Your task to perform on an android device: Open Android settings Image 0: 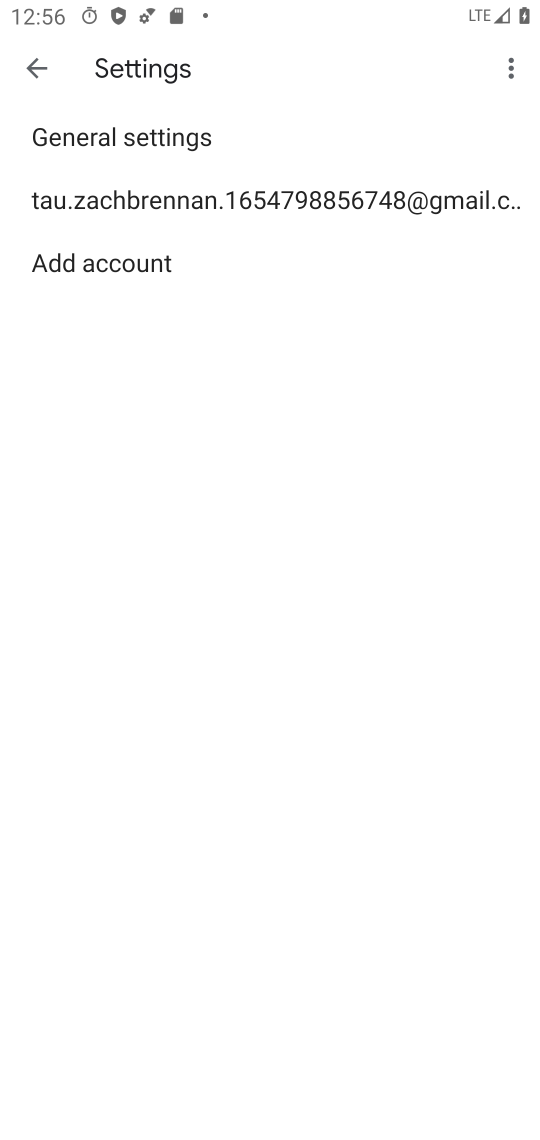
Step 0: press home button
Your task to perform on an android device: Open Android settings Image 1: 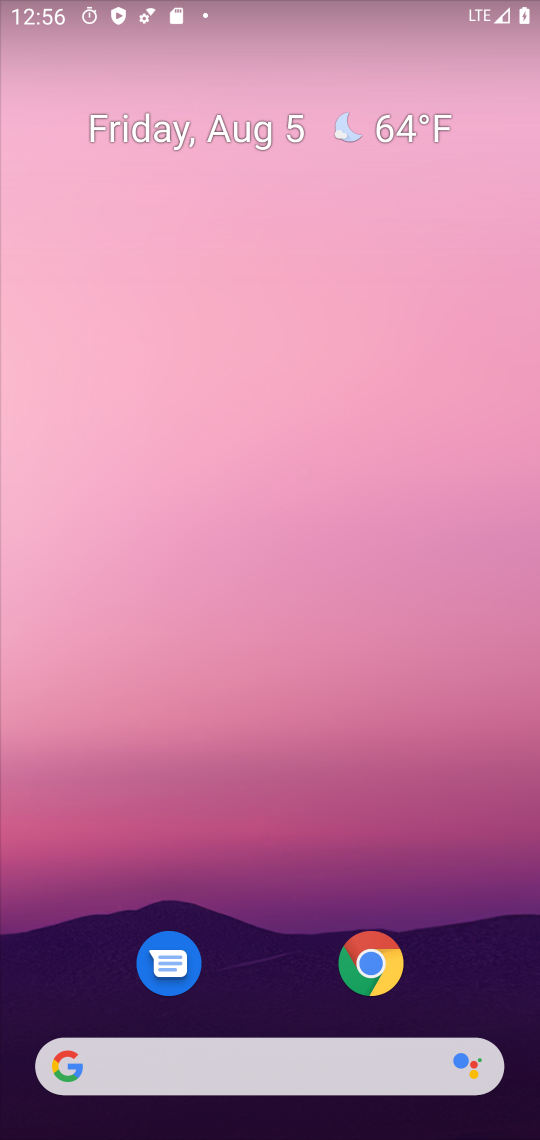
Step 1: drag from (327, 859) to (439, 17)
Your task to perform on an android device: Open Android settings Image 2: 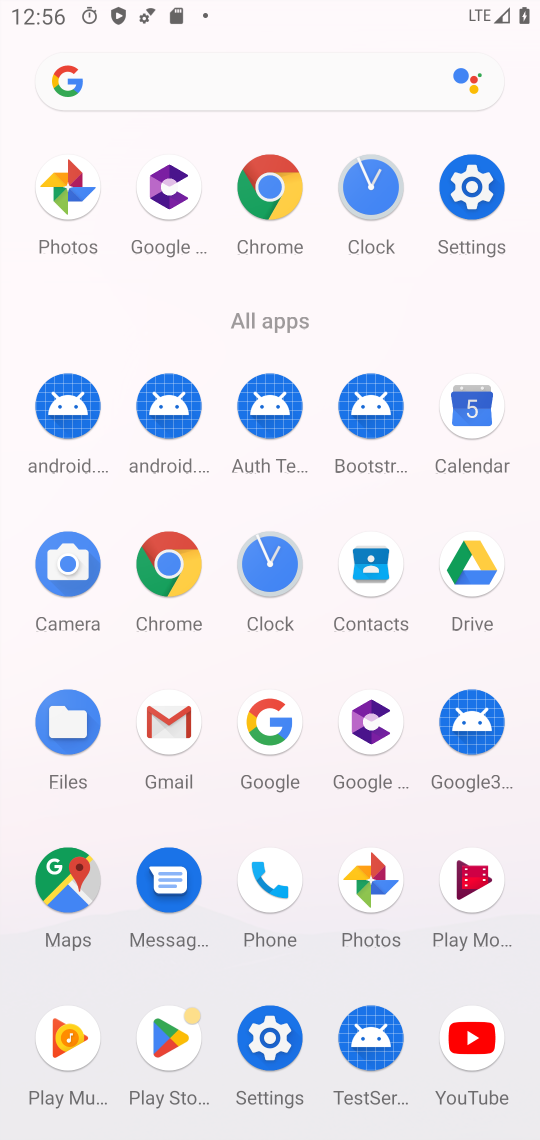
Step 2: click (481, 198)
Your task to perform on an android device: Open Android settings Image 3: 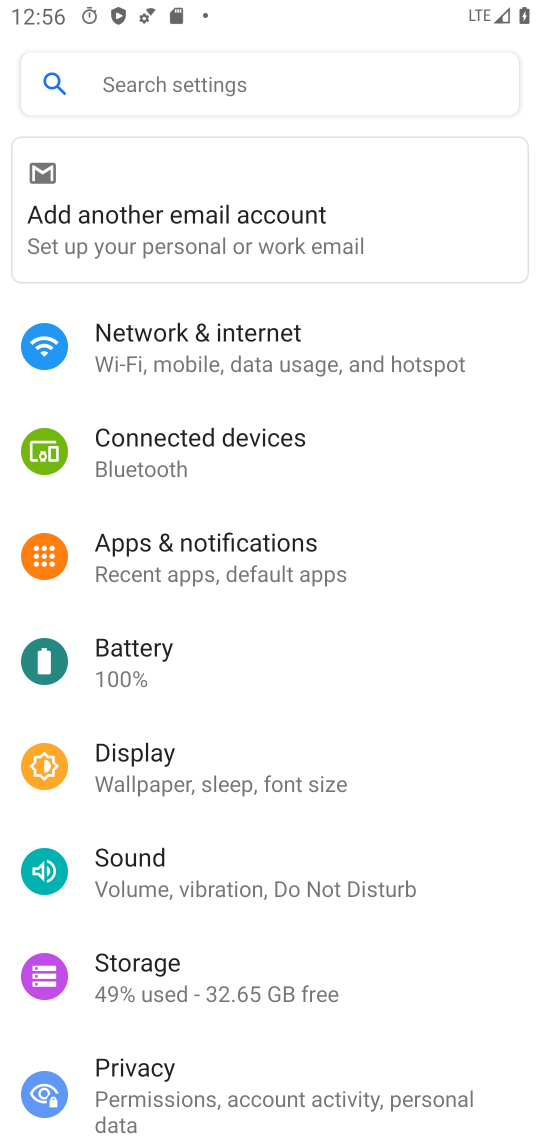
Step 3: task complete